Your task to perform on an android device: toggle pop-ups in chrome Image 0: 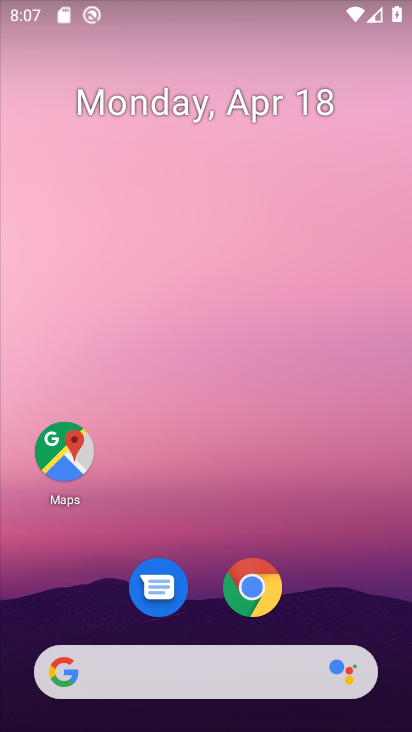
Step 0: click (233, 580)
Your task to perform on an android device: toggle pop-ups in chrome Image 1: 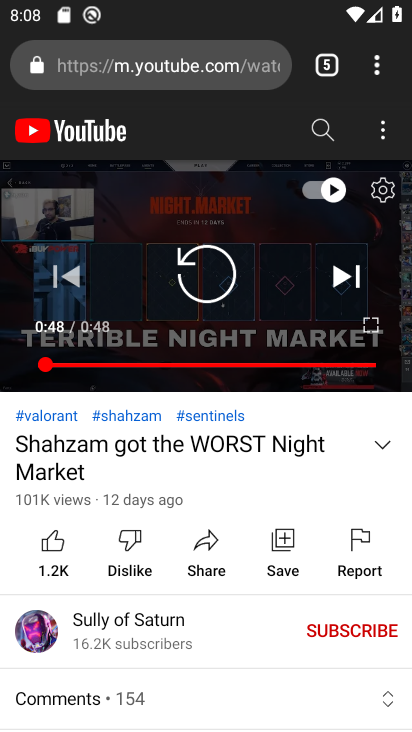
Step 1: click (384, 71)
Your task to perform on an android device: toggle pop-ups in chrome Image 2: 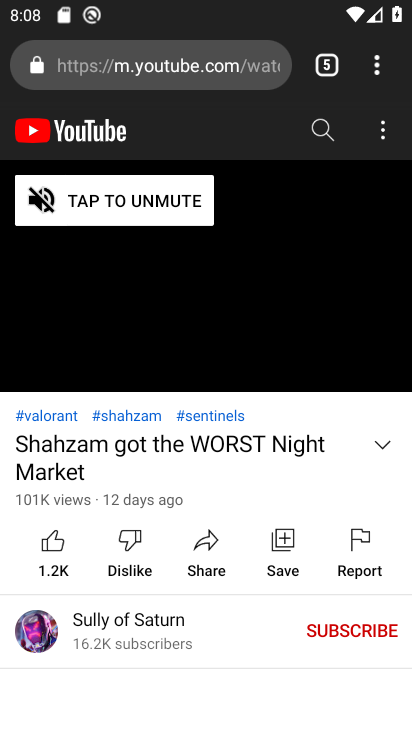
Step 2: click (376, 75)
Your task to perform on an android device: toggle pop-ups in chrome Image 3: 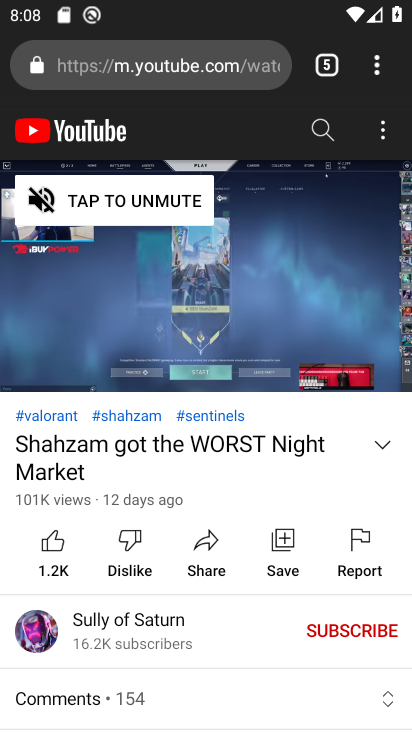
Step 3: click (376, 75)
Your task to perform on an android device: toggle pop-ups in chrome Image 4: 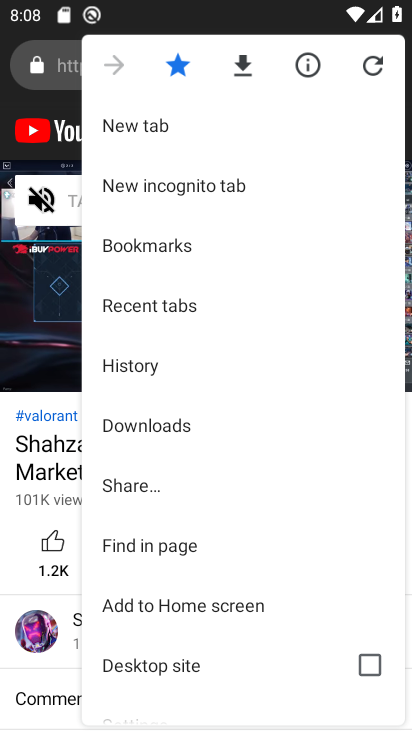
Step 4: drag from (135, 640) to (159, 153)
Your task to perform on an android device: toggle pop-ups in chrome Image 5: 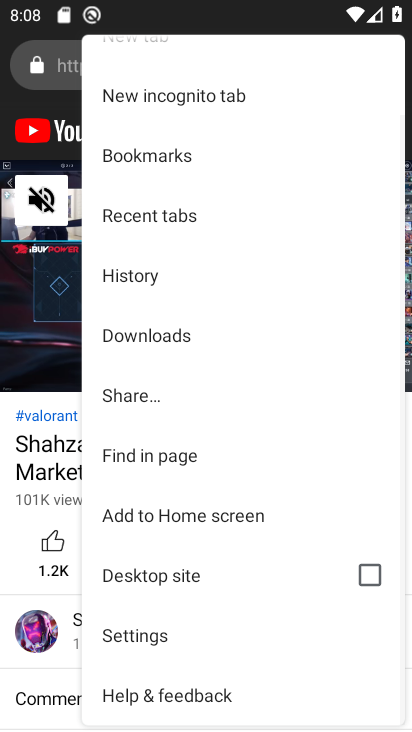
Step 5: click (143, 648)
Your task to perform on an android device: toggle pop-ups in chrome Image 6: 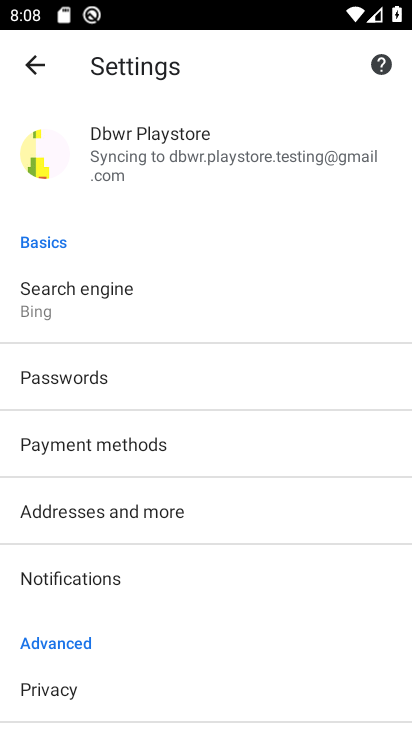
Step 6: drag from (143, 648) to (152, 158)
Your task to perform on an android device: toggle pop-ups in chrome Image 7: 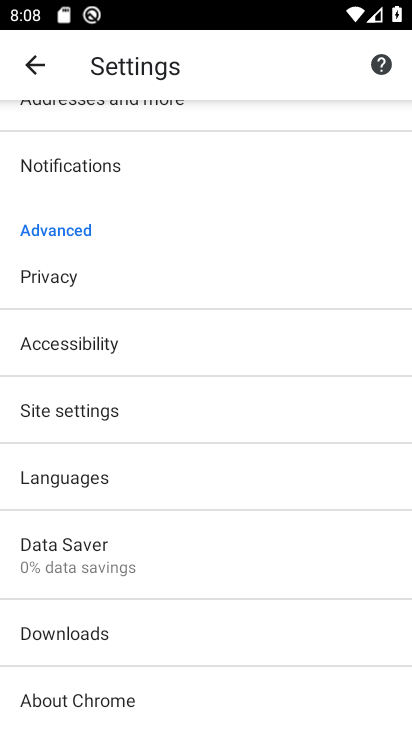
Step 7: drag from (102, 675) to (133, 288)
Your task to perform on an android device: toggle pop-ups in chrome Image 8: 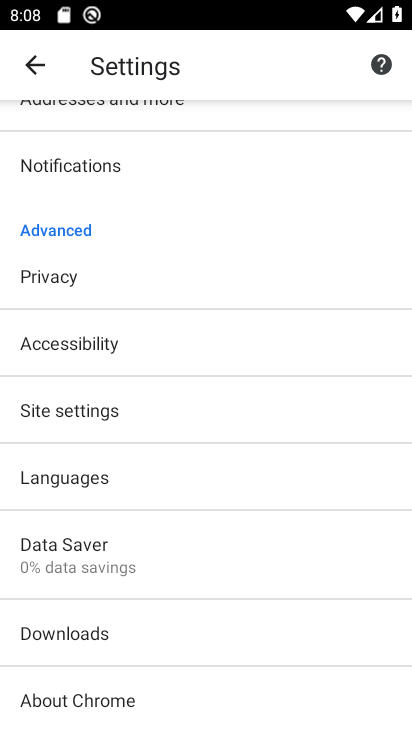
Step 8: click (136, 408)
Your task to perform on an android device: toggle pop-ups in chrome Image 9: 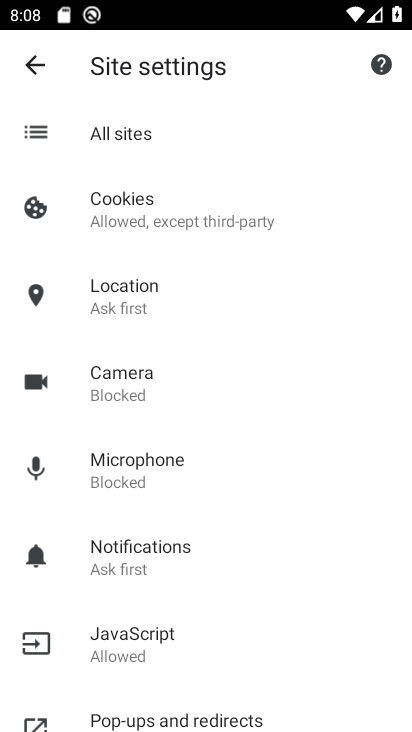
Step 9: click (100, 721)
Your task to perform on an android device: toggle pop-ups in chrome Image 10: 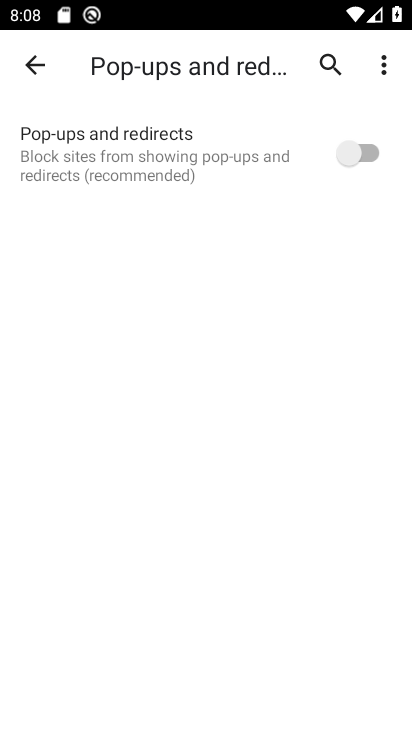
Step 10: click (375, 151)
Your task to perform on an android device: toggle pop-ups in chrome Image 11: 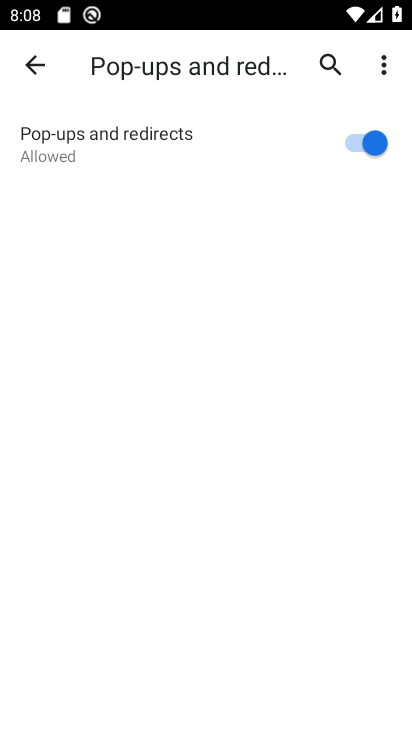
Step 11: click (375, 151)
Your task to perform on an android device: toggle pop-ups in chrome Image 12: 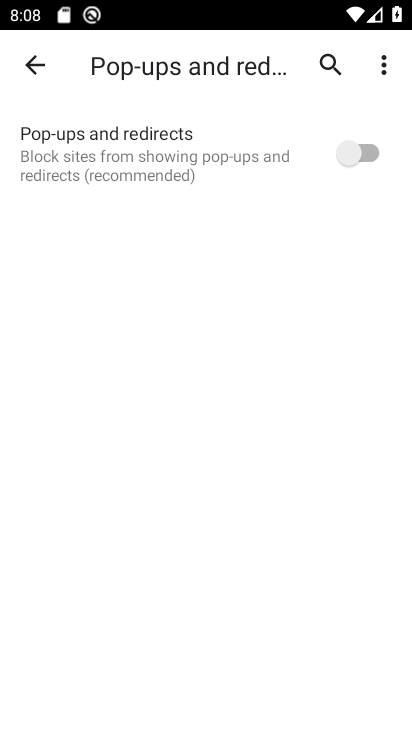
Step 12: click (375, 151)
Your task to perform on an android device: toggle pop-ups in chrome Image 13: 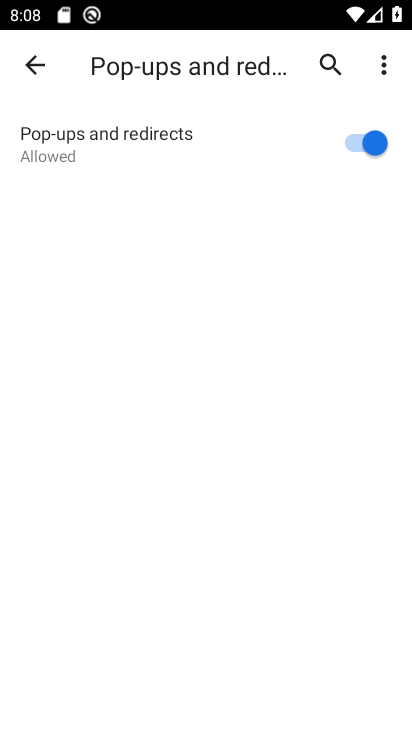
Step 13: click (375, 151)
Your task to perform on an android device: toggle pop-ups in chrome Image 14: 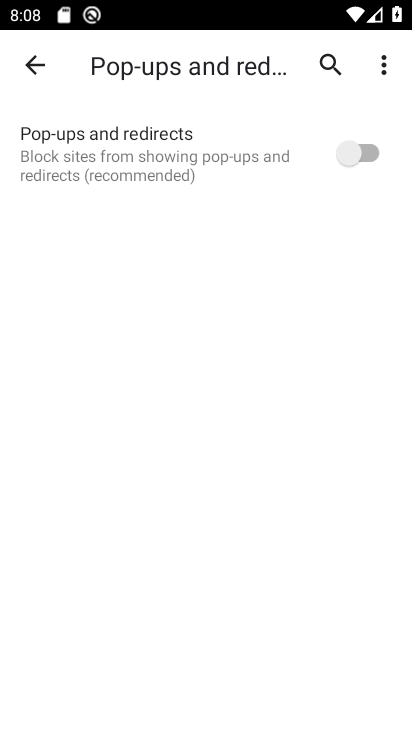
Step 14: click (375, 151)
Your task to perform on an android device: toggle pop-ups in chrome Image 15: 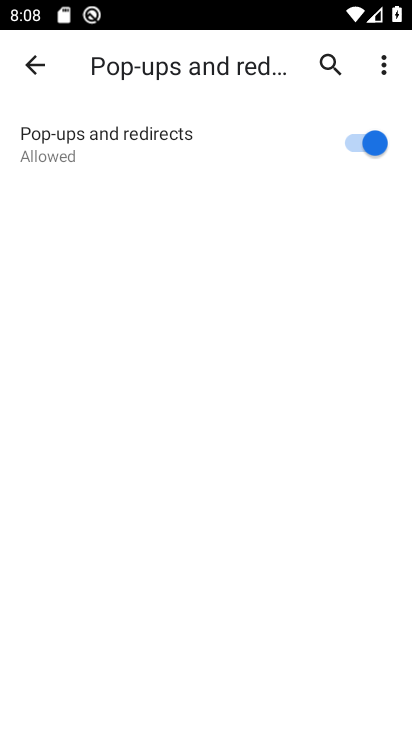
Step 15: task complete